Your task to perform on an android device: Search for Mexican restaurants on Maps Image 0: 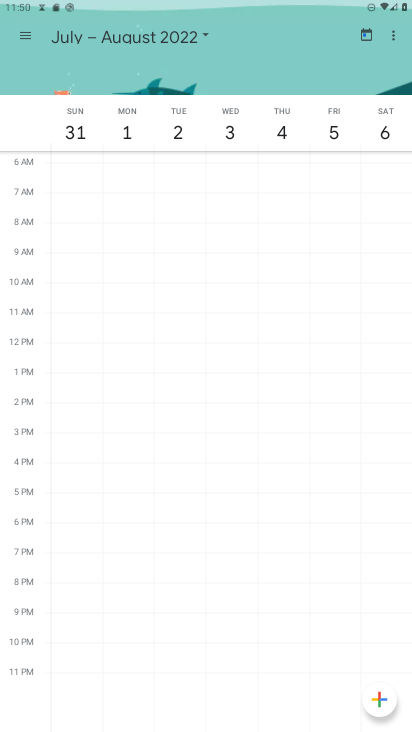
Step 0: press home button
Your task to perform on an android device: Search for Mexican restaurants on Maps Image 1: 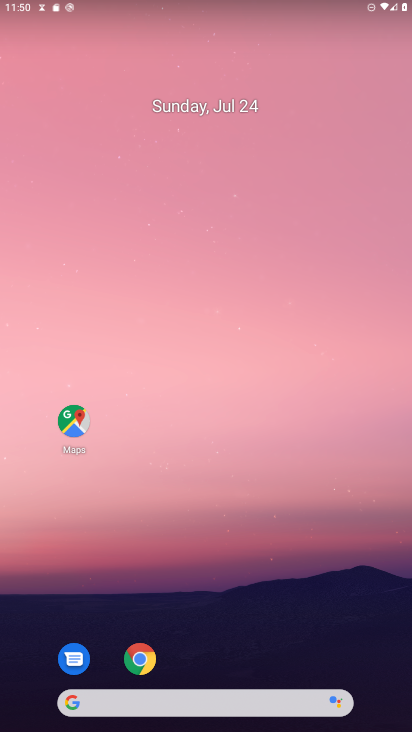
Step 1: click (78, 431)
Your task to perform on an android device: Search for Mexican restaurants on Maps Image 2: 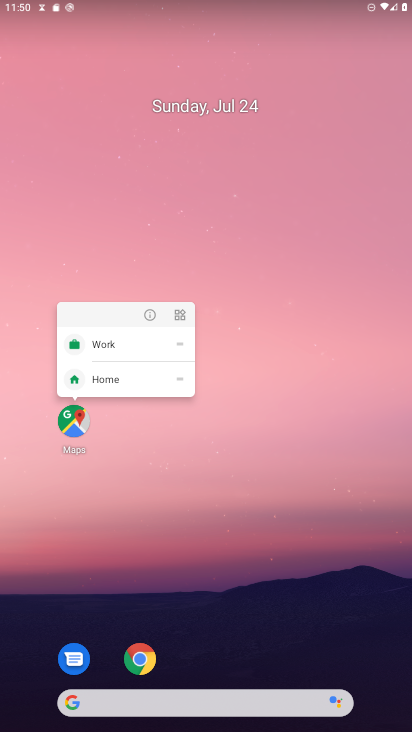
Step 2: click (78, 431)
Your task to perform on an android device: Search for Mexican restaurants on Maps Image 3: 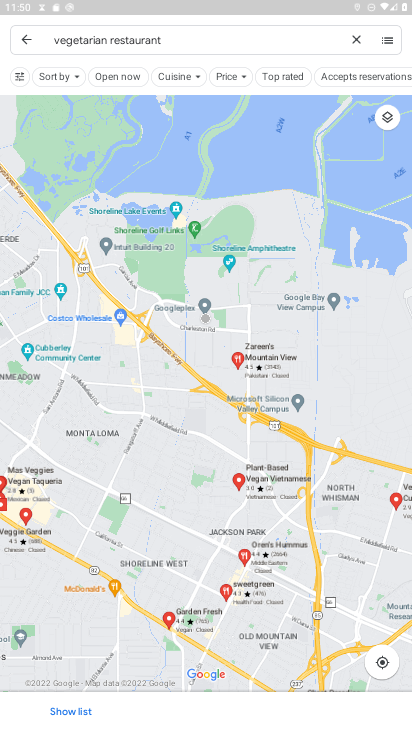
Step 3: click (355, 32)
Your task to perform on an android device: Search for Mexican restaurants on Maps Image 4: 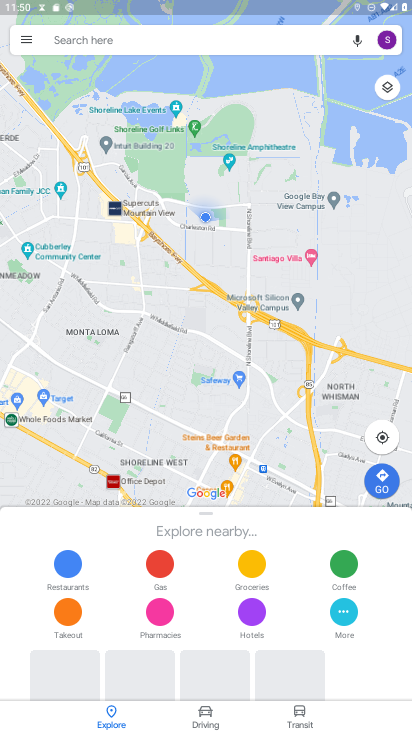
Step 4: click (167, 29)
Your task to perform on an android device: Search for Mexican restaurants on Maps Image 5: 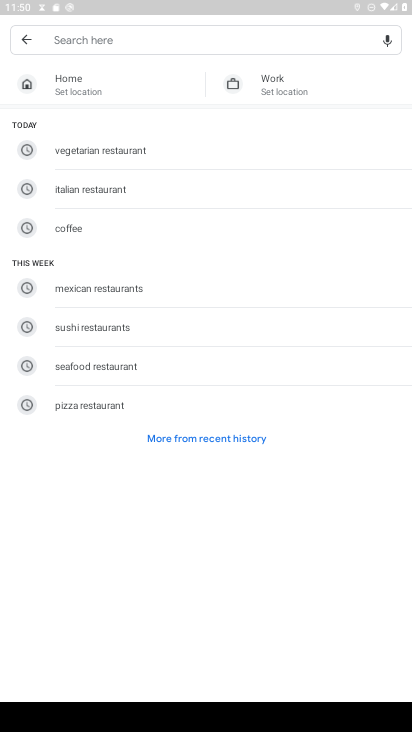
Step 5: click (109, 276)
Your task to perform on an android device: Search for Mexican restaurants on Maps Image 6: 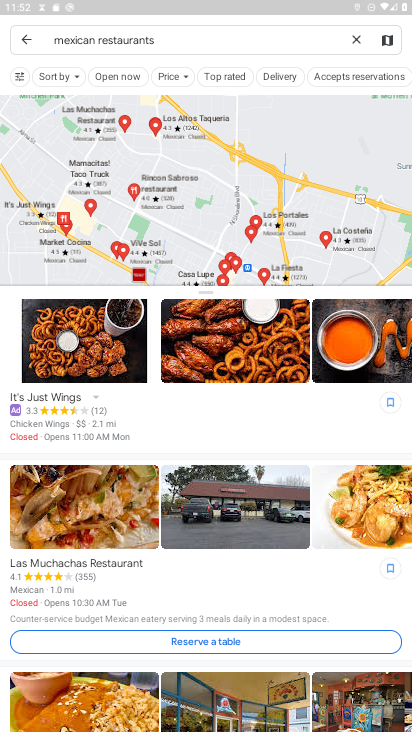
Step 6: task complete